Your task to perform on an android device: Open Amazon Image 0: 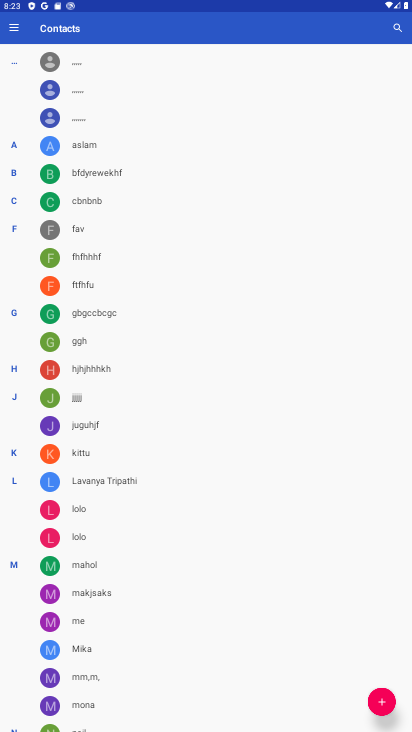
Step 0: press home button
Your task to perform on an android device: Open Amazon Image 1: 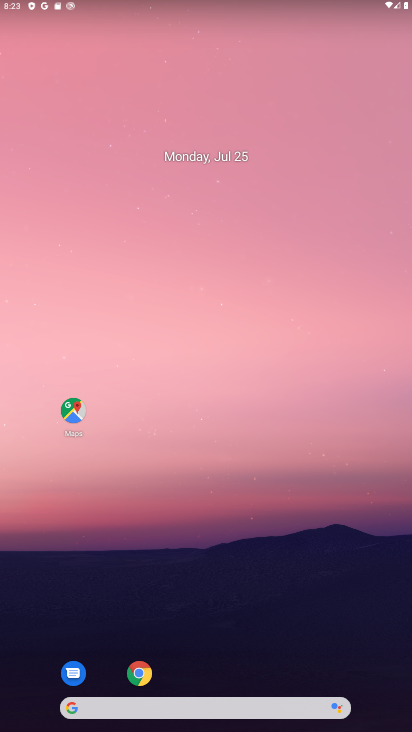
Step 1: click (139, 659)
Your task to perform on an android device: Open Amazon Image 2: 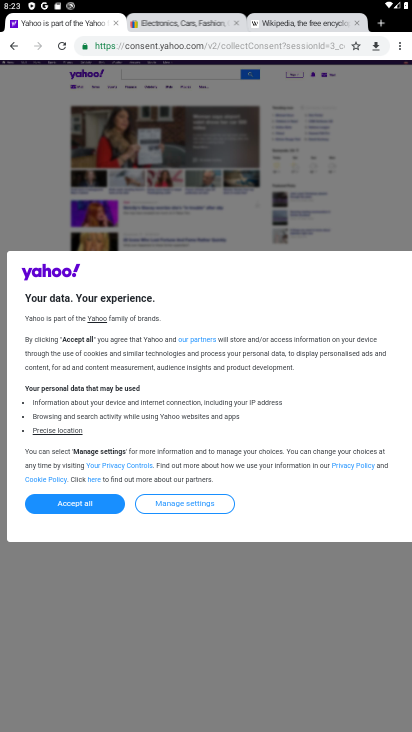
Step 2: click (94, 499)
Your task to perform on an android device: Open Amazon Image 3: 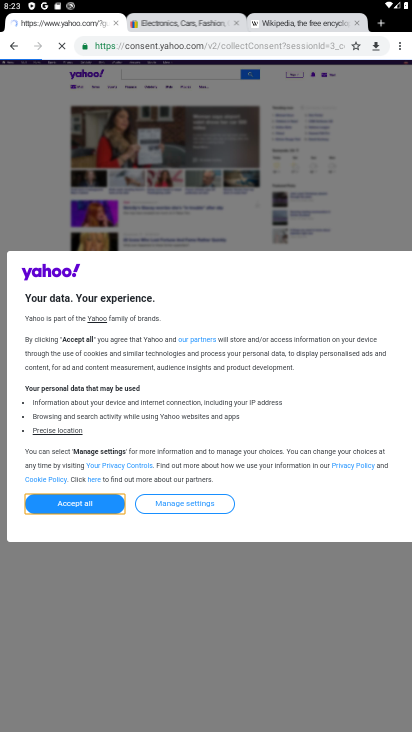
Step 3: task complete